Your task to perform on an android device: change notification settings in the gmail app Image 0: 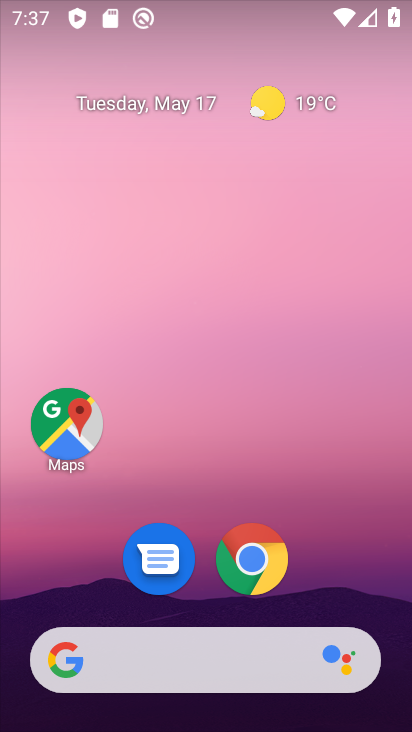
Step 0: click (343, 187)
Your task to perform on an android device: change notification settings in the gmail app Image 1: 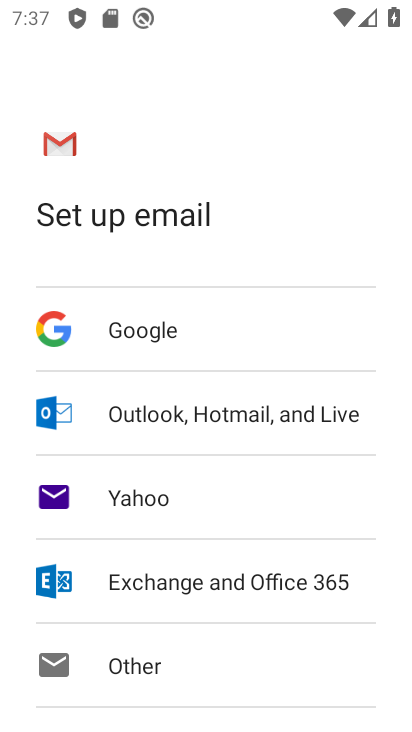
Step 1: press home button
Your task to perform on an android device: change notification settings in the gmail app Image 2: 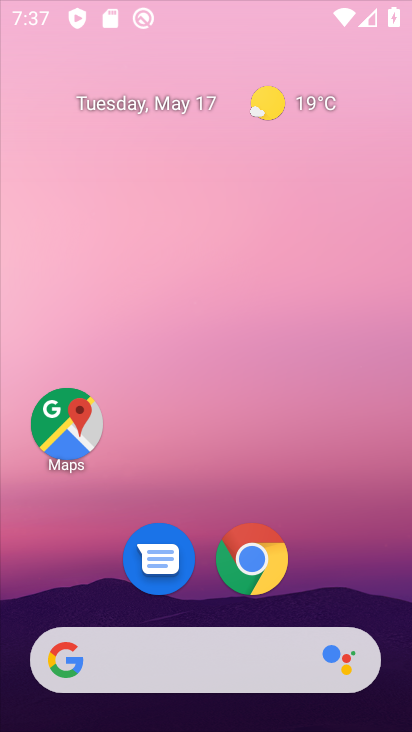
Step 2: drag from (268, 638) to (210, 267)
Your task to perform on an android device: change notification settings in the gmail app Image 3: 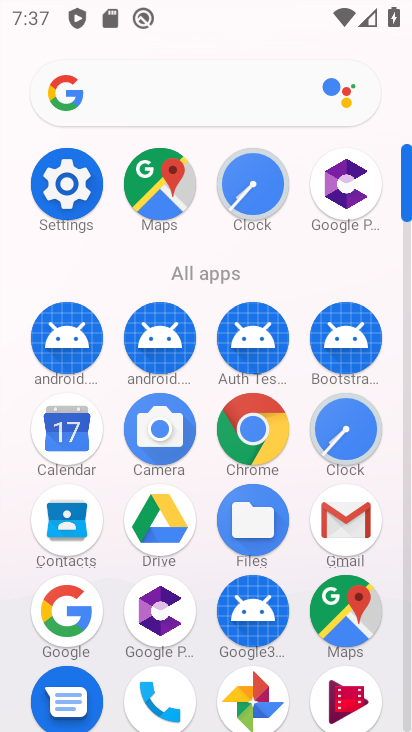
Step 3: click (322, 506)
Your task to perform on an android device: change notification settings in the gmail app Image 4: 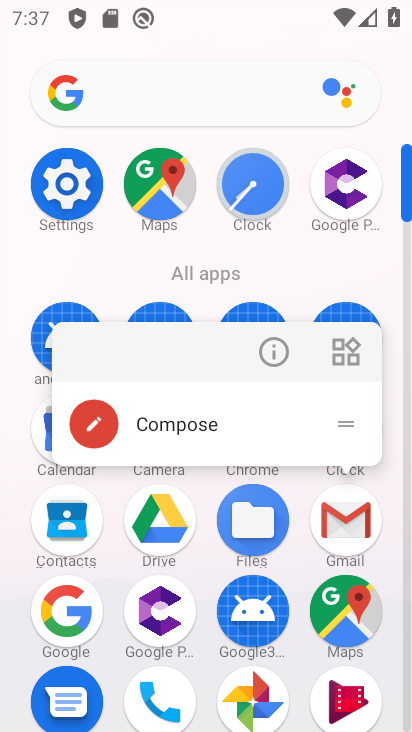
Step 4: click (279, 339)
Your task to perform on an android device: change notification settings in the gmail app Image 5: 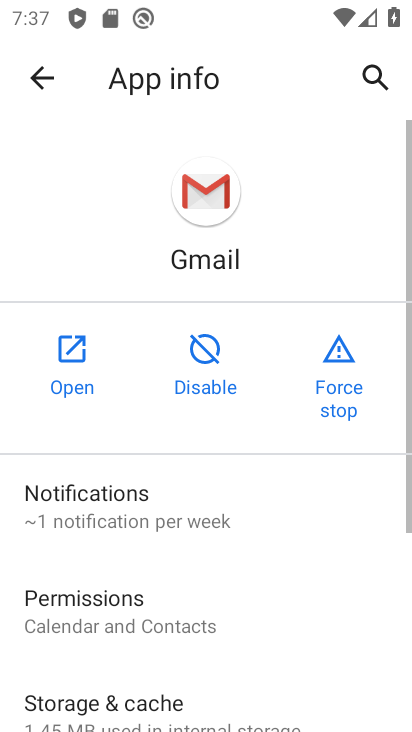
Step 5: click (62, 364)
Your task to perform on an android device: change notification settings in the gmail app Image 6: 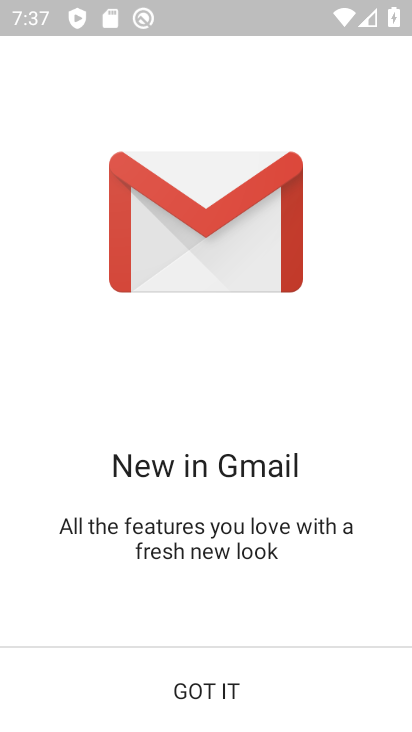
Step 6: click (188, 702)
Your task to perform on an android device: change notification settings in the gmail app Image 7: 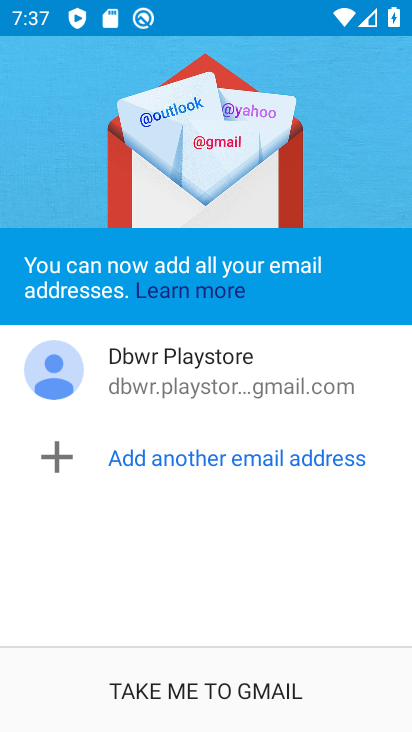
Step 7: click (203, 719)
Your task to perform on an android device: change notification settings in the gmail app Image 8: 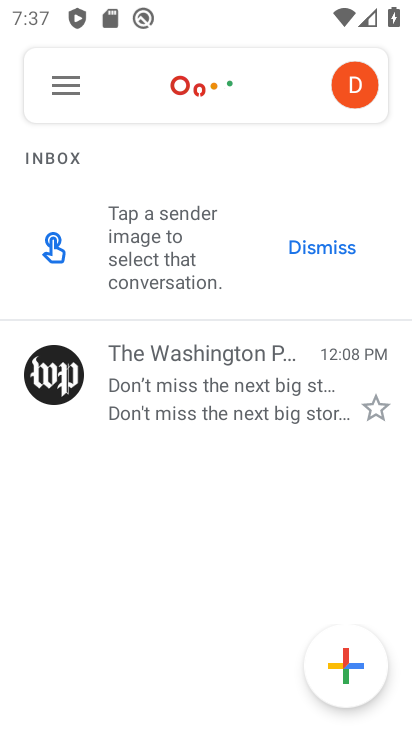
Step 8: click (72, 87)
Your task to perform on an android device: change notification settings in the gmail app Image 9: 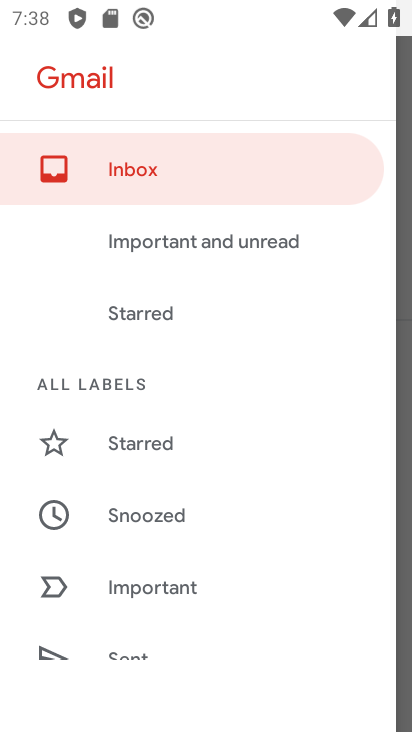
Step 9: drag from (228, 452) to (283, 2)
Your task to perform on an android device: change notification settings in the gmail app Image 10: 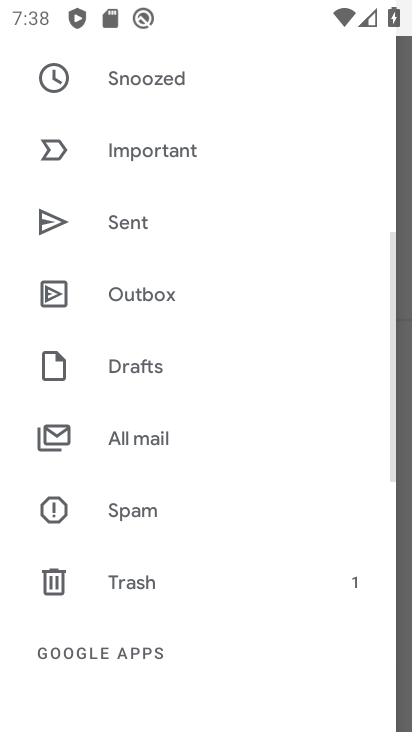
Step 10: drag from (157, 621) to (287, 97)
Your task to perform on an android device: change notification settings in the gmail app Image 11: 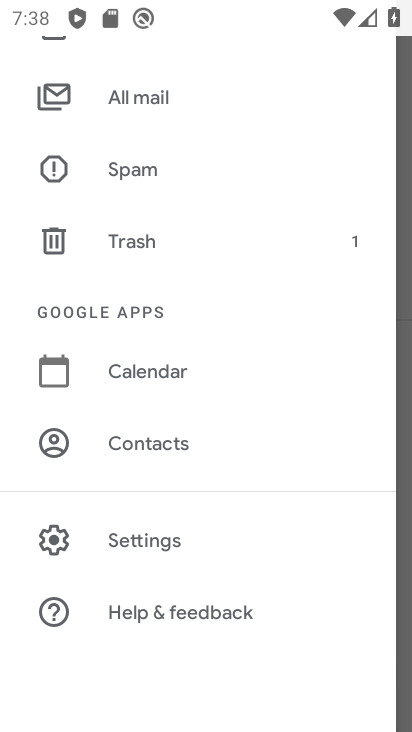
Step 11: click (145, 543)
Your task to perform on an android device: change notification settings in the gmail app Image 12: 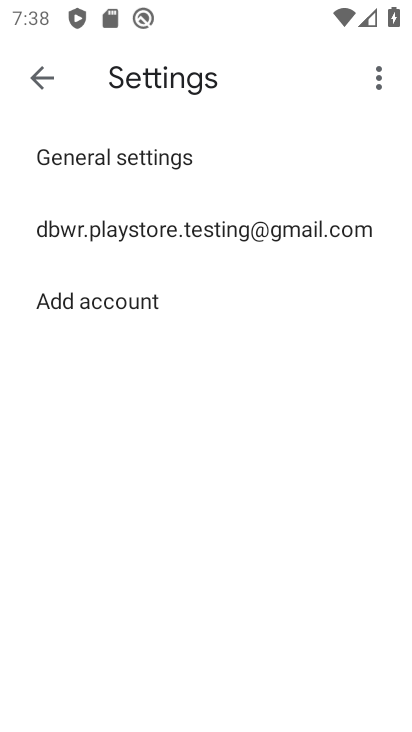
Step 12: click (216, 240)
Your task to perform on an android device: change notification settings in the gmail app Image 13: 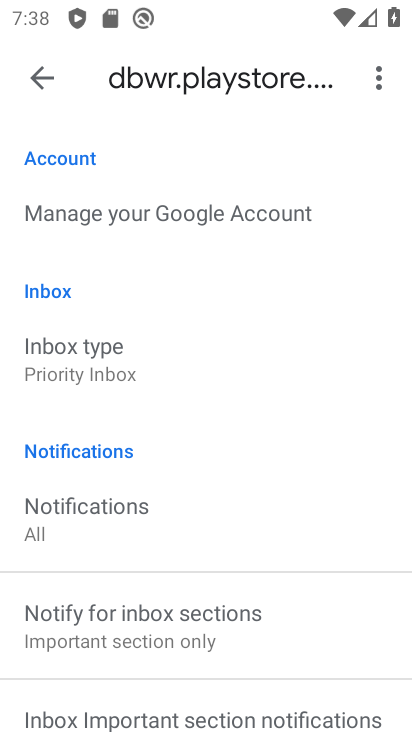
Step 13: drag from (185, 572) to (217, 198)
Your task to perform on an android device: change notification settings in the gmail app Image 14: 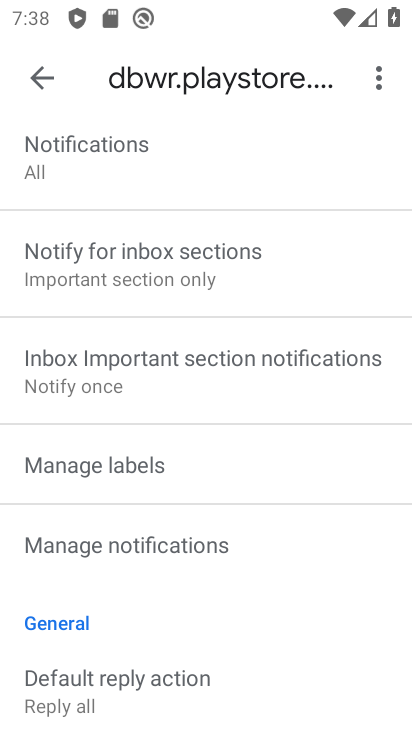
Step 14: click (124, 564)
Your task to perform on an android device: change notification settings in the gmail app Image 15: 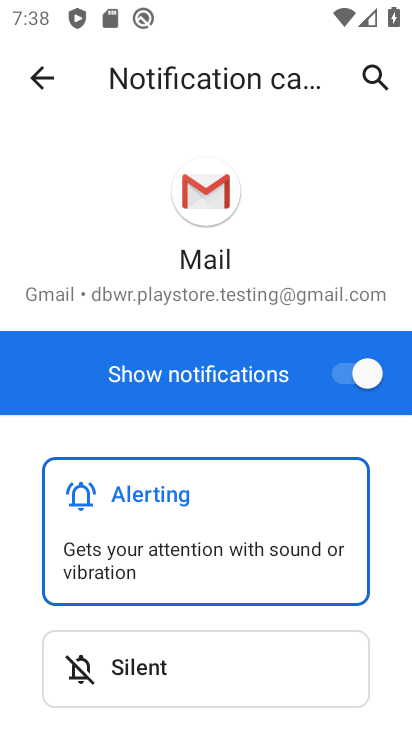
Step 15: click (379, 343)
Your task to perform on an android device: change notification settings in the gmail app Image 16: 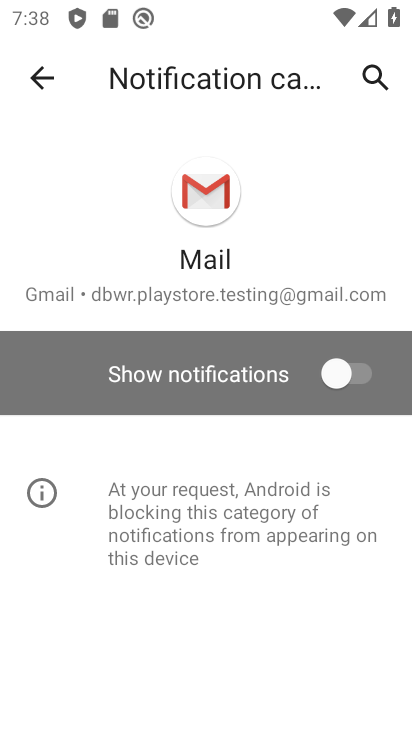
Step 16: task complete